Your task to perform on an android device: allow cookies in the chrome app Image 0: 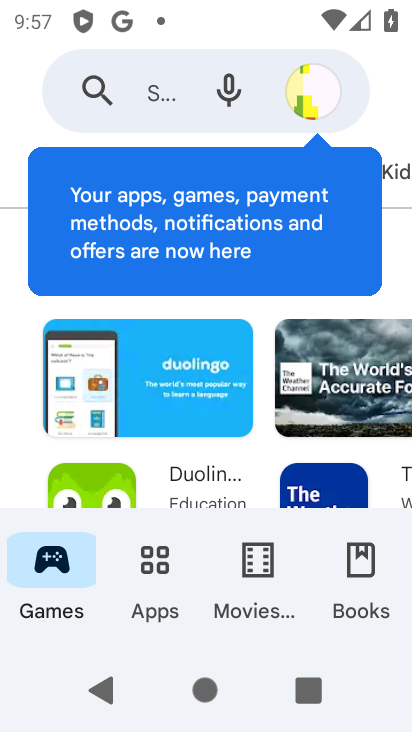
Step 0: press home button
Your task to perform on an android device: allow cookies in the chrome app Image 1: 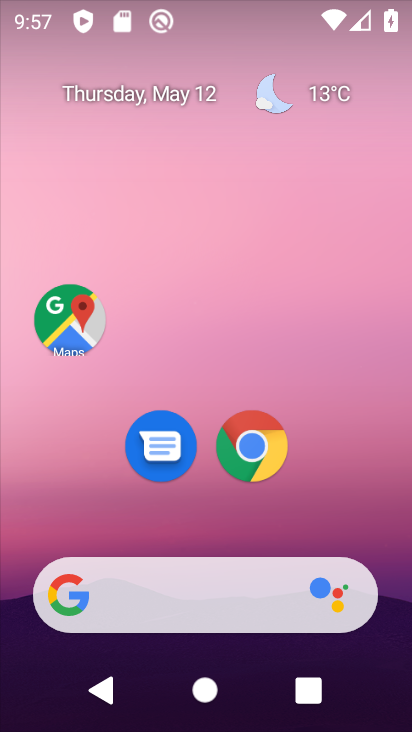
Step 1: click (264, 459)
Your task to perform on an android device: allow cookies in the chrome app Image 2: 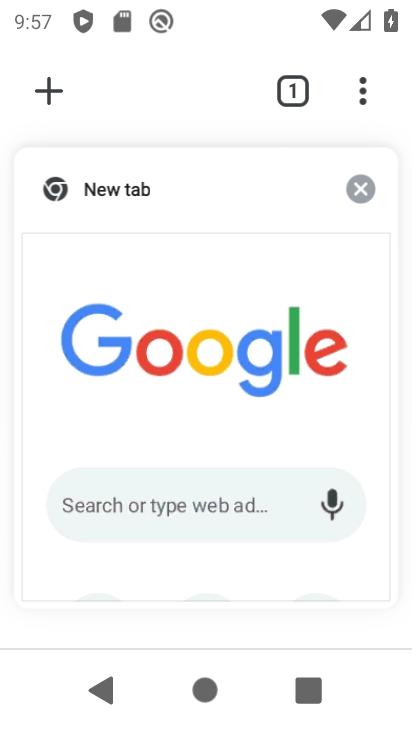
Step 2: click (367, 93)
Your task to perform on an android device: allow cookies in the chrome app Image 3: 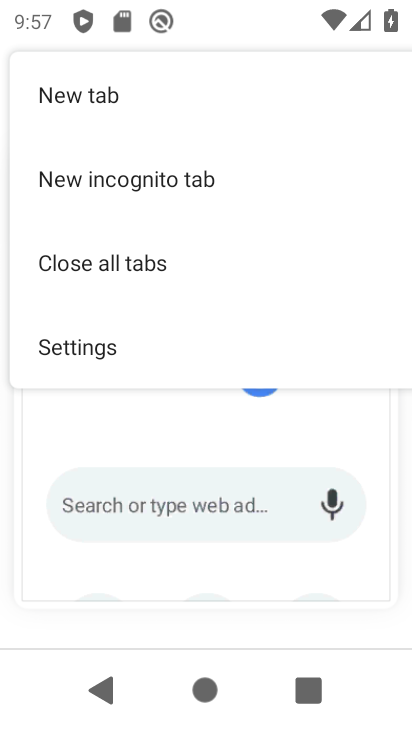
Step 3: click (69, 350)
Your task to perform on an android device: allow cookies in the chrome app Image 4: 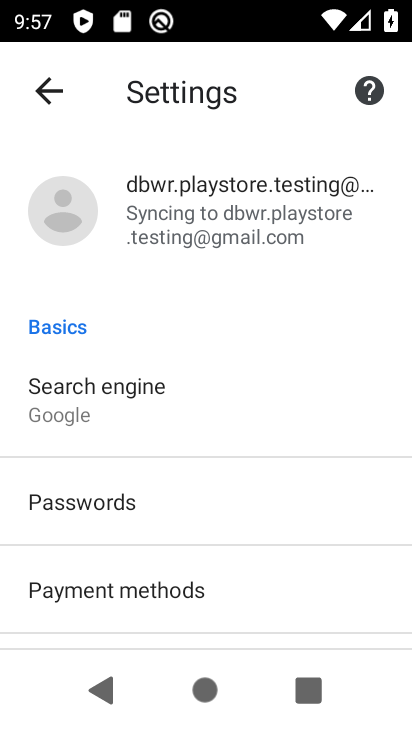
Step 4: drag from (143, 601) to (201, 97)
Your task to perform on an android device: allow cookies in the chrome app Image 5: 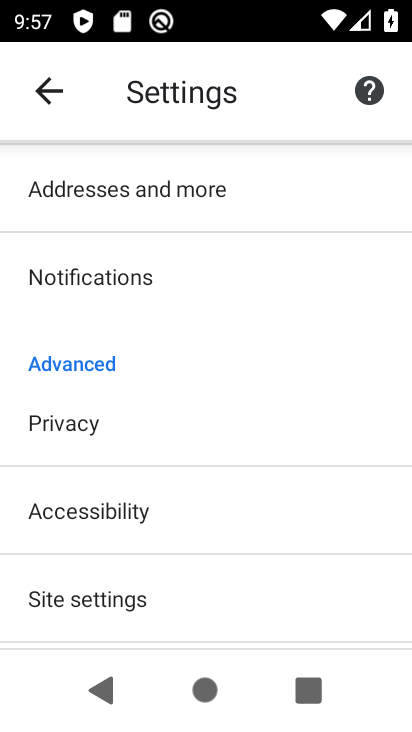
Step 5: click (129, 618)
Your task to perform on an android device: allow cookies in the chrome app Image 6: 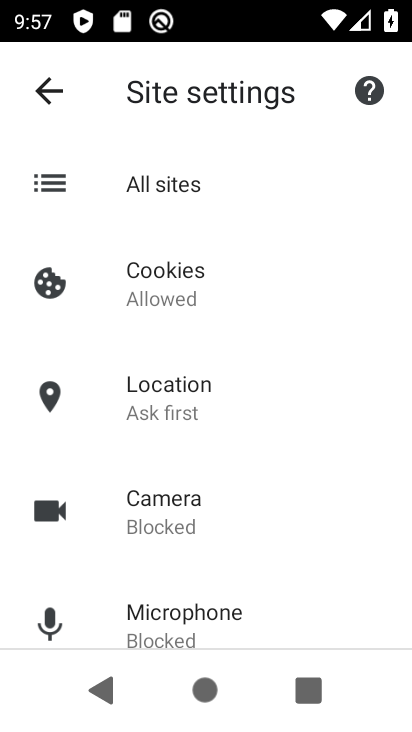
Step 6: task complete